Your task to perform on an android device: see tabs open on other devices in the chrome app Image 0: 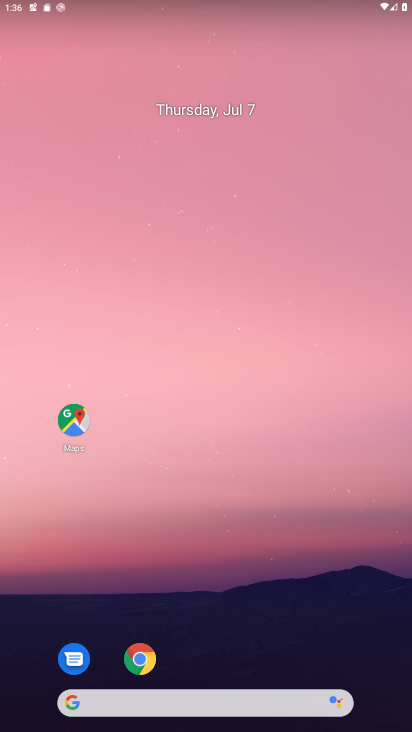
Step 0: drag from (229, 656) to (272, 24)
Your task to perform on an android device: see tabs open on other devices in the chrome app Image 1: 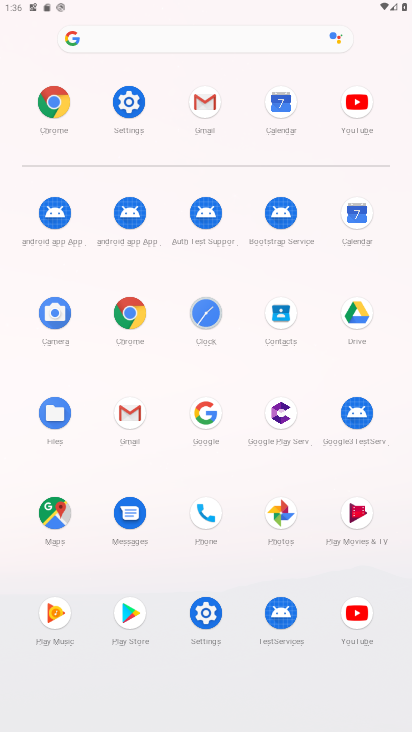
Step 1: click (132, 316)
Your task to perform on an android device: see tabs open on other devices in the chrome app Image 2: 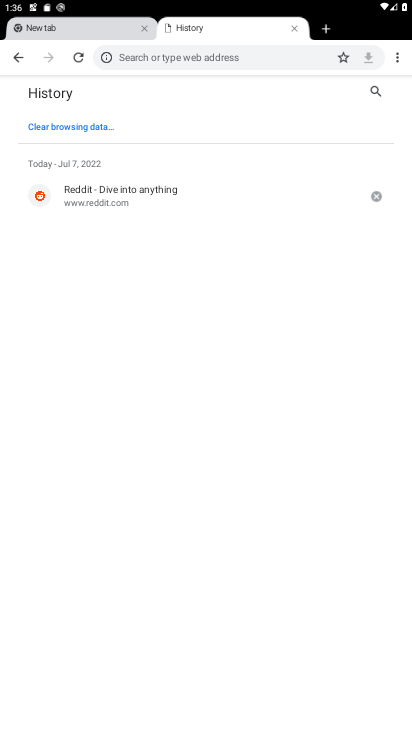
Step 2: task complete